Your task to perform on an android device: Search for Italian restaurants on Maps Image 0: 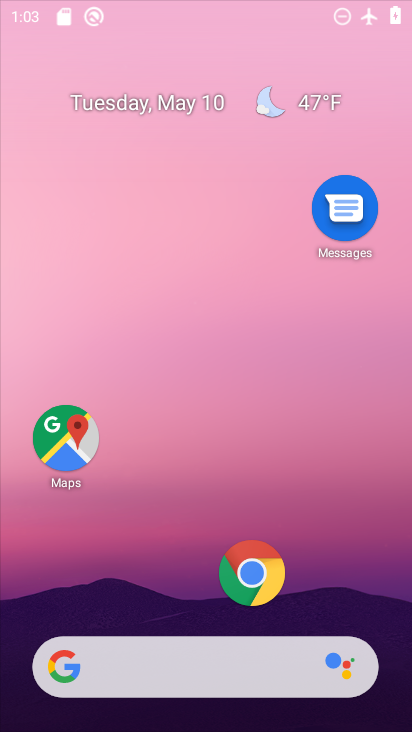
Step 0: drag from (184, 609) to (268, 162)
Your task to perform on an android device: Search for Italian restaurants on Maps Image 1: 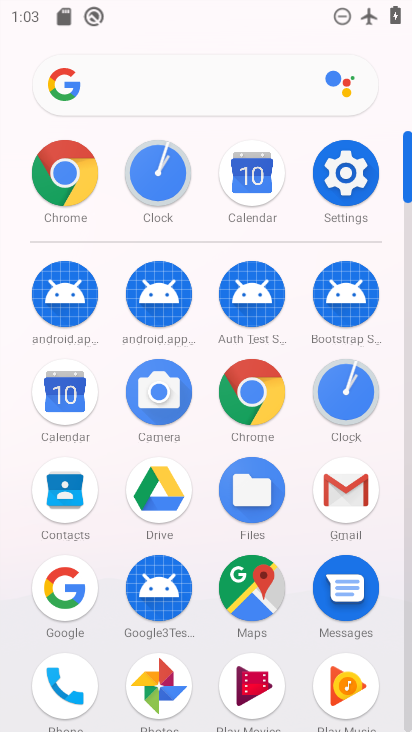
Step 1: click (235, 580)
Your task to perform on an android device: Search for Italian restaurants on Maps Image 2: 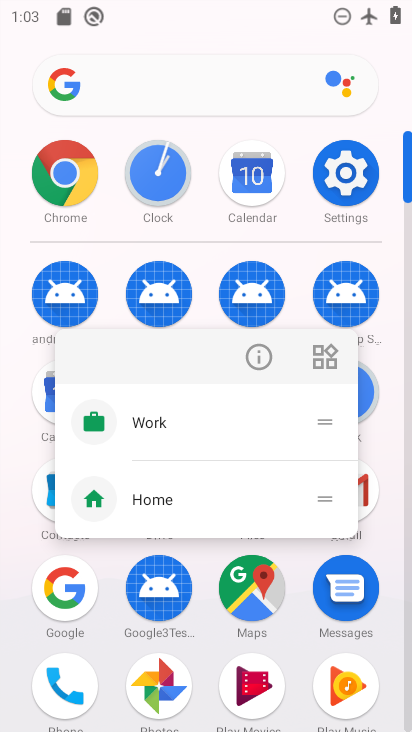
Step 2: click (256, 355)
Your task to perform on an android device: Search for Italian restaurants on Maps Image 3: 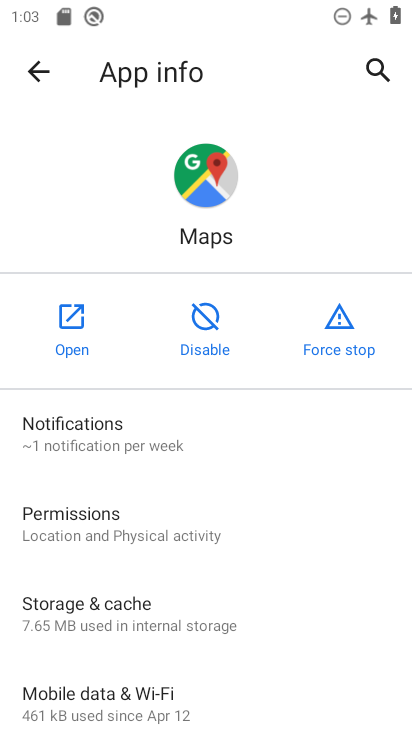
Step 3: click (84, 329)
Your task to perform on an android device: Search for Italian restaurants on Maps Image 4: 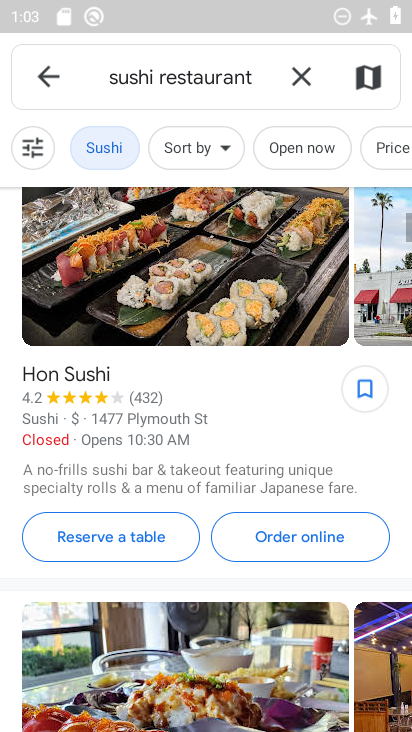
Step 4: drag from (209, 662) to (261, 191)
Your task to perform on an android device: Search for Italian restaurants on Maps Image 5: 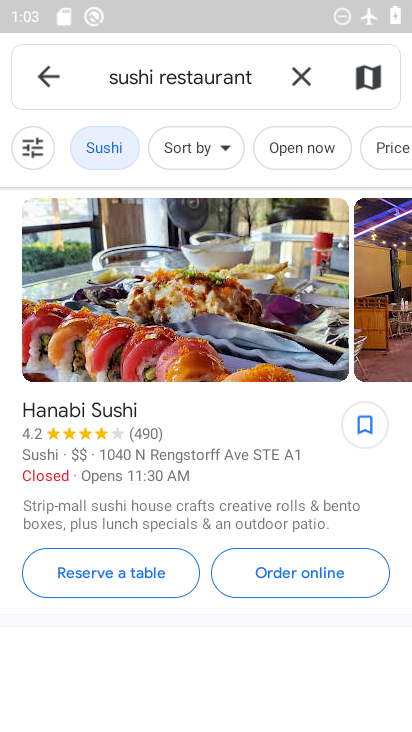
Step 5: drag from (231, 196) to (293, 652)
Your task to perform on an android device: Search for Italian restaurants on Maps Image 6: 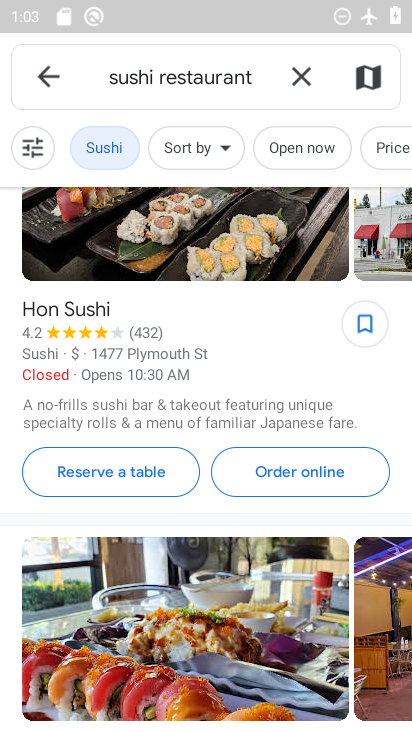
Step 6: click (309, 79)
Your task to perform on an android device: Search for Italian restaurants on Maps Image 7: 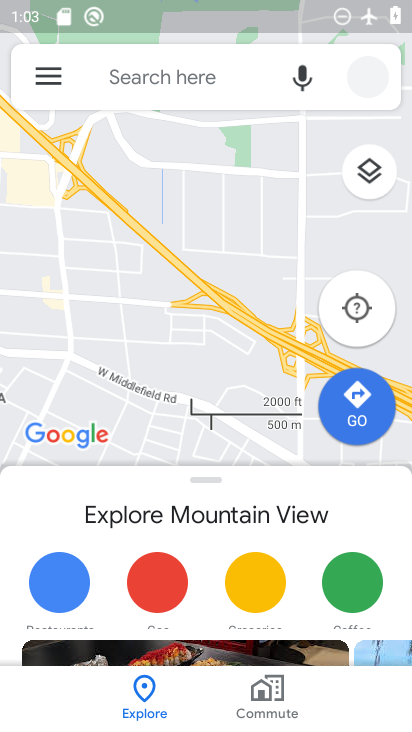
Step 7: click (184, 77)
Your task to perform on an android device: Search for Italian restaurants on Maps Image 8: 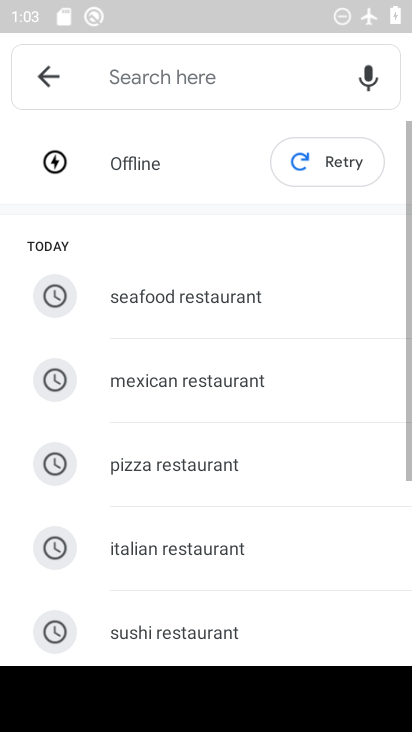
Step 8: drag from (260, 612) to (278, 344)
Your task to perform on an android device: Search for Italian restaurants on Maps Image 9: 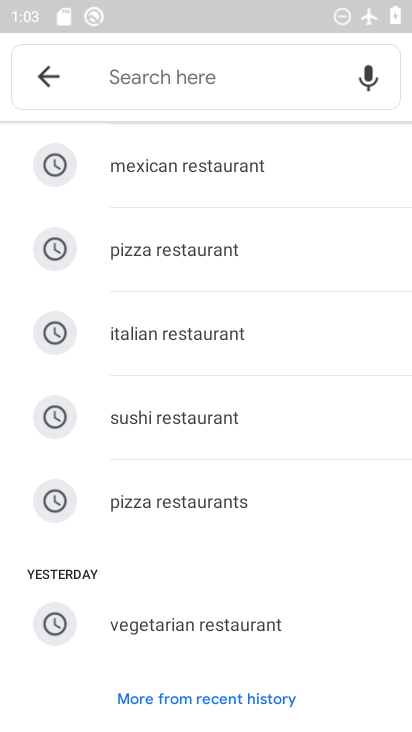
Step 9: click (186, 324)
Your task to perform on an android device: Search for Italian restaurants on Maps Image 10: 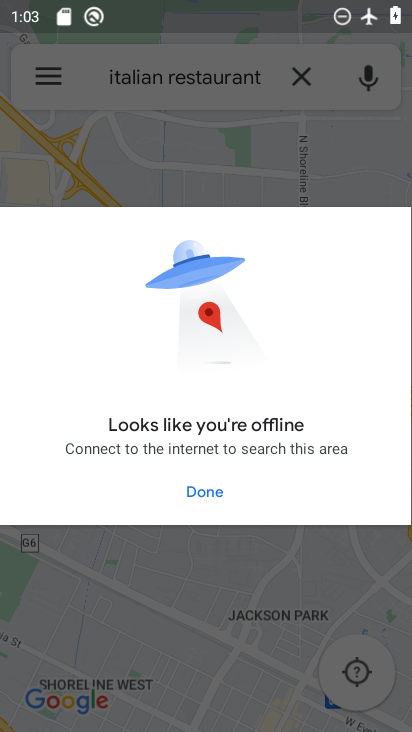
Step 10: task complete